Your task to perform on an android device: Search for vegetarian restaurants on Maps Image 0: 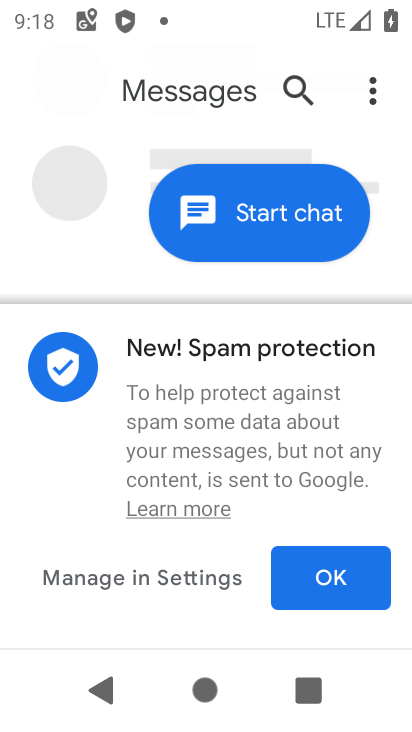
Step 0: press home button
Your task to perform on an android device: Search for vegetarian restaurants on Maps Image 1: 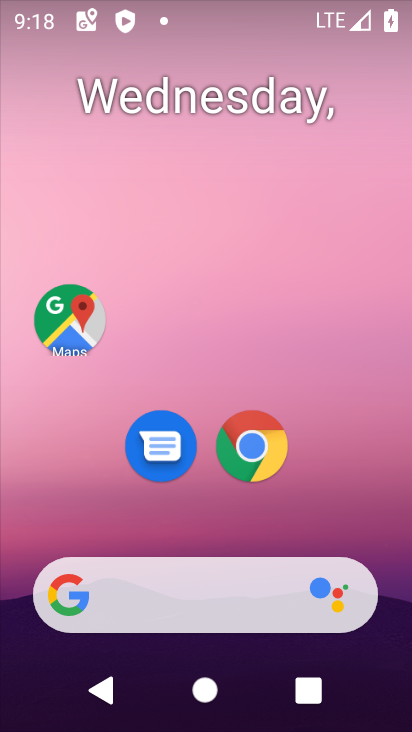
Step 1: click (75, 323)
Your task to perform on an android device: Search for vegetarian restaurants on Maps Image 2: 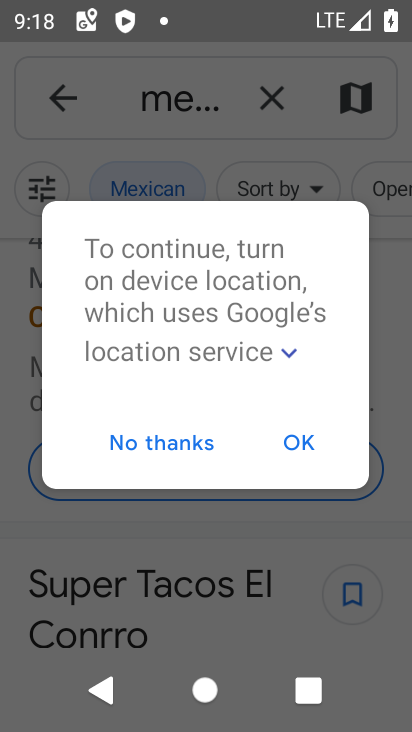
Step 2: click (285, 451)
Your task to perform on an android device: Search for vegetarian restaurants on Maps Image 3: 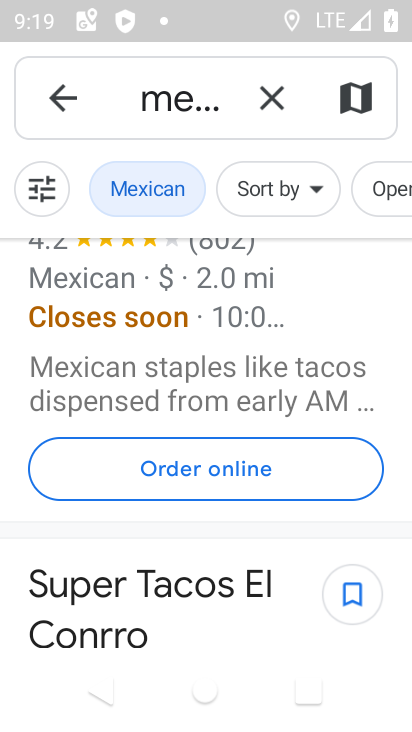
Step 3: click (271, 95)
Your task to perform on an android device: Search for vegetarian restaurants on Maps Image 4: 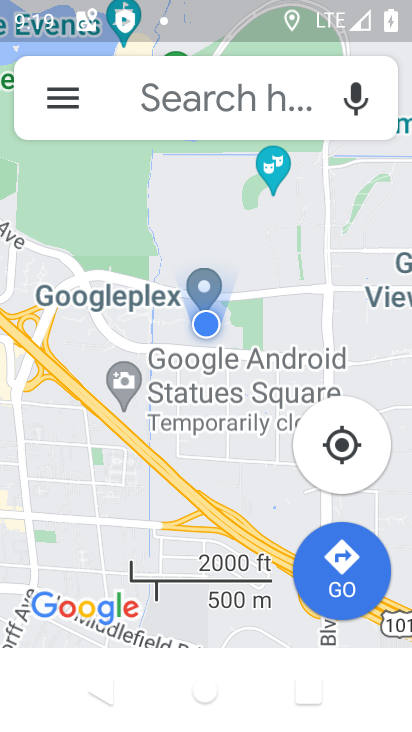
Step 4: click (196, 103)
Your task to perform on an android device: Search for vegetarian restaurants on Maps Image 5: 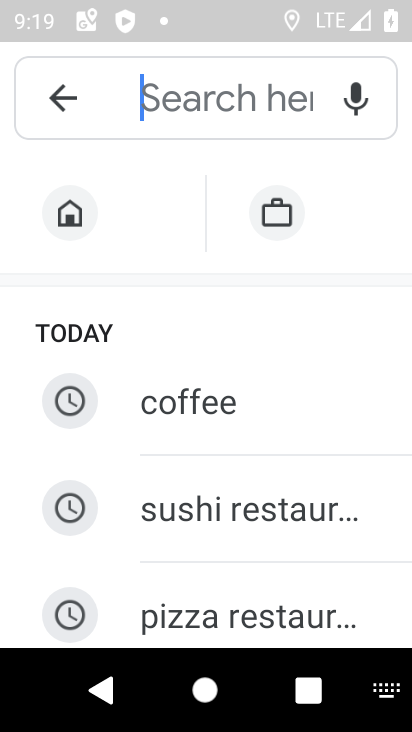
Step 5: drag from (221, 586) to (291, 144)
Your task to perform on an android device: Search for vegetarian restaurants on Maps Image 6: 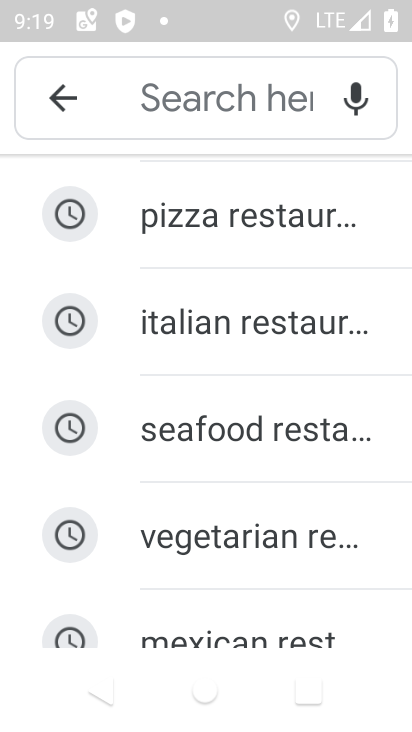
Step 6: click (225, 531)
Your task to perform on an android device: Search for vegetarian restaurants on Maps Image 7: 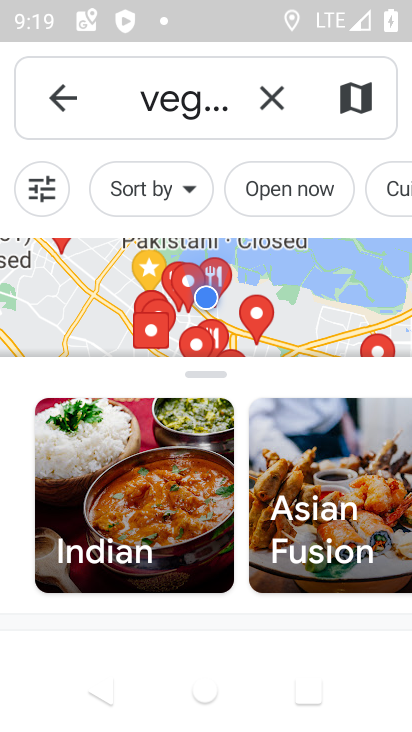
Step 7: task complete